Your task to perform on an android device: change the clock display to digital Image 0: 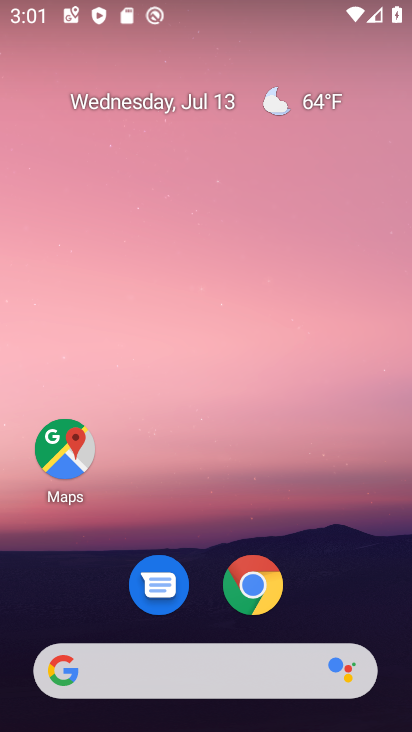
Step 0: press home button
Your task to perform on an android device: change the clock display to digital Image 1: 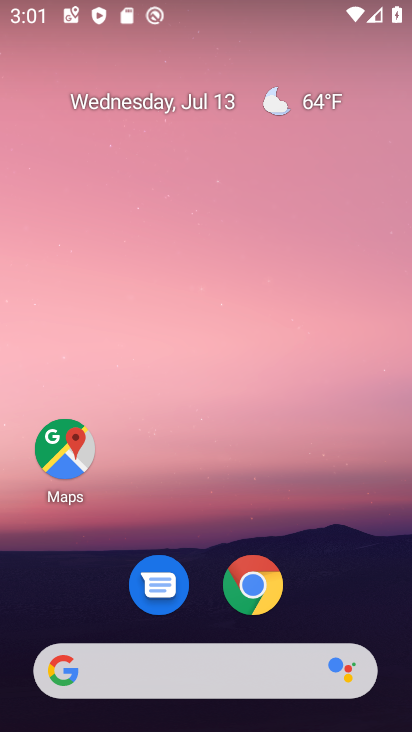
Step 1: drag from (216, 661) to (337, 141)
Your task to perform on an android device: change the clock display to digital Image 2: 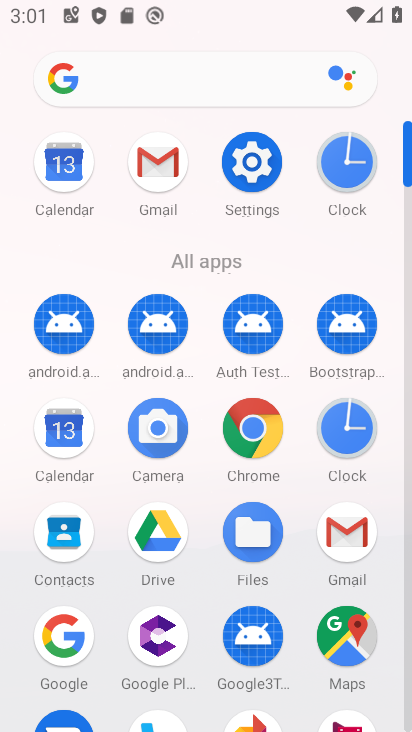
Step 2: click (341, 433)
Your task to perform on an android device: change the clock display to digital Image 3: 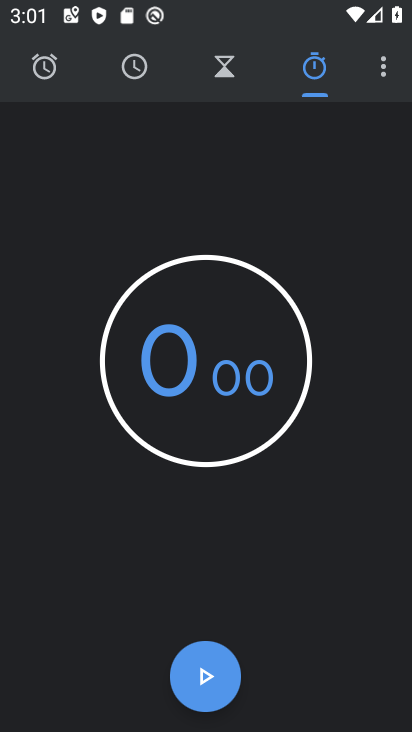
Step 3: click (386, 69)
Your task to perform on an android device: change the clock display to digital Image 4: 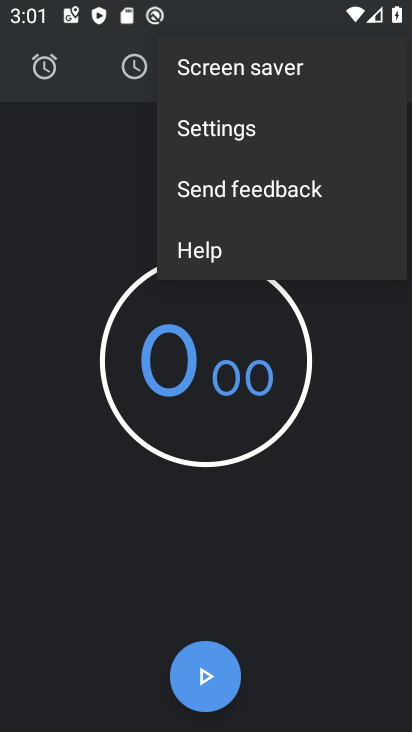
Step 4: click (244, 129)
Your task to perform on an android device: change the clock display to digital Image 5: 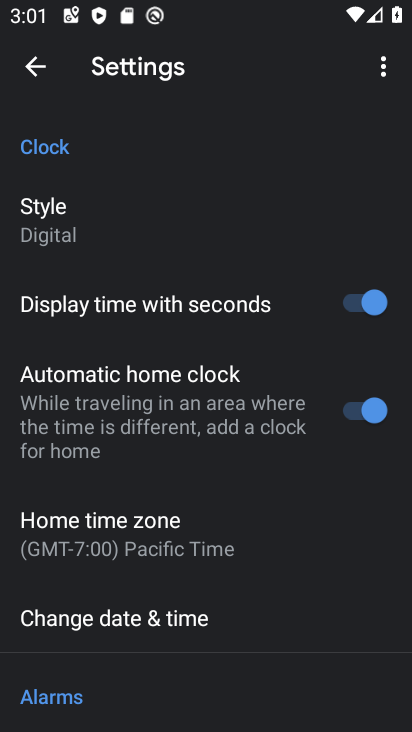
Step 5: task complete